Your task to perform on an android device: Open display settings Image 0: 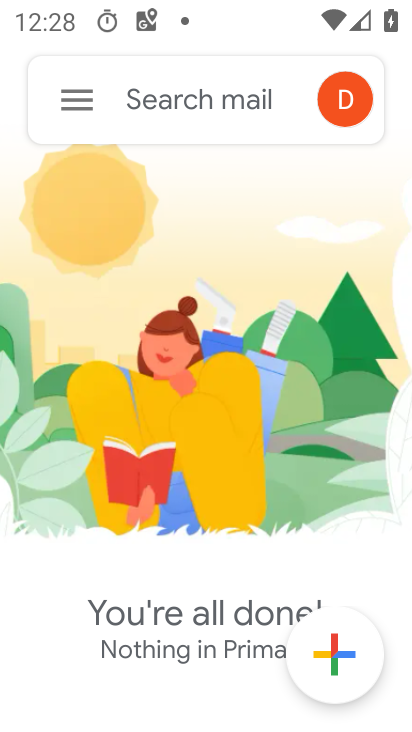
Step 0: press home button
Your task to perform on an android device: Open display settings Image 1: 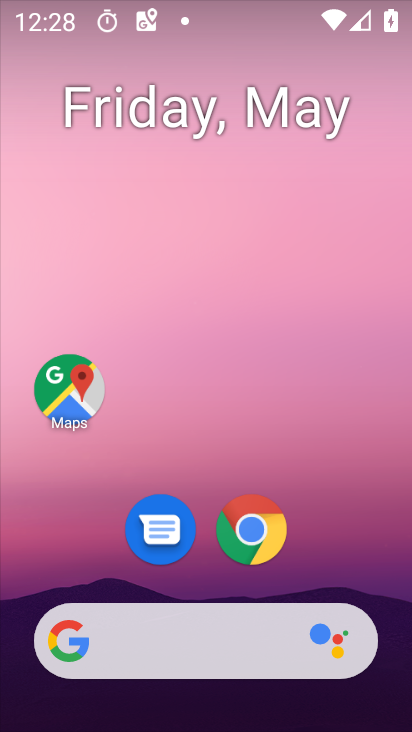
Step 1: drag from (226, 567) to (240, 230)
Your task to perform on an android device: Open display settings Image 2: 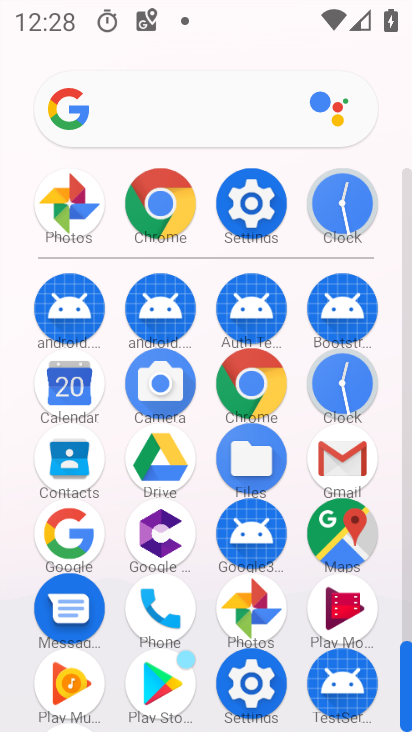
Step 2: drag from (183, 555) to (199, 379)
Your task to perform on an android device: Open display settings Image 3: 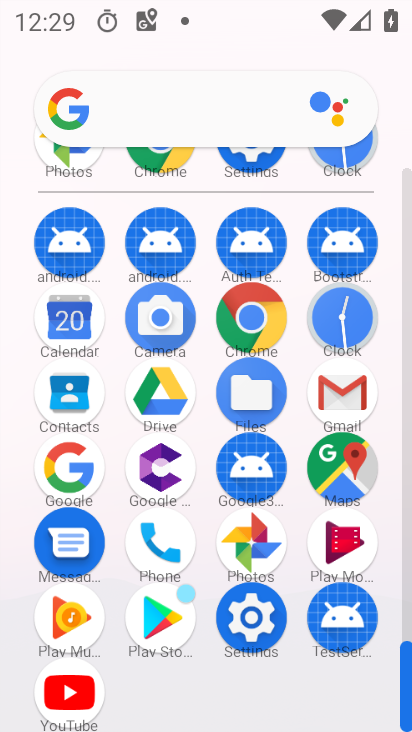
Step 3: click (250, 616)
Your task to perform on an android device: Open display settings Image 4: 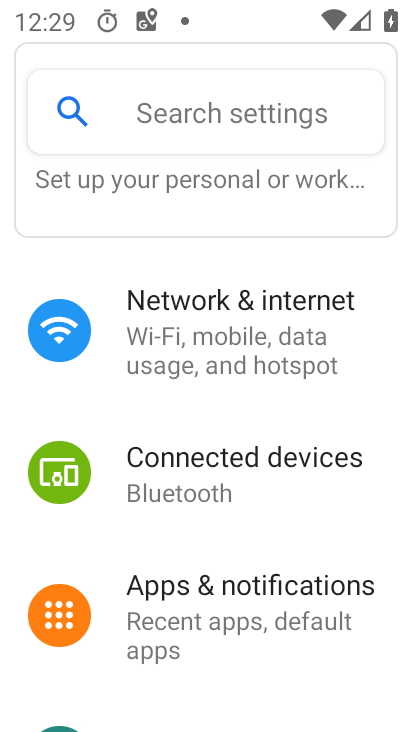
Step 4: drag from (247, 614) to (295, 245)
Your task to perform on an android device: Open display settings Image 5: 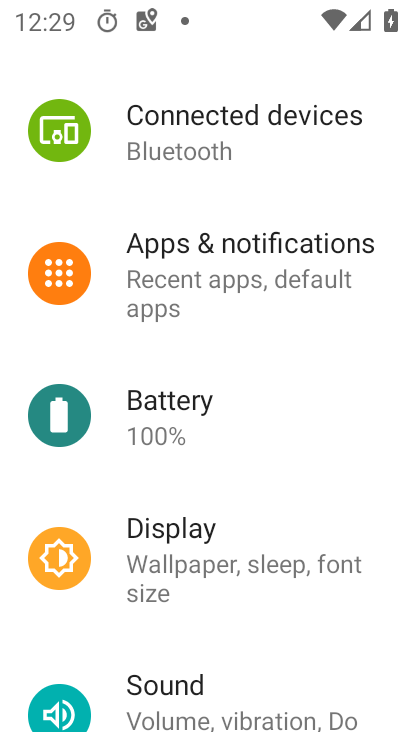
Step 5: click (227, 562)
Your task to perform on an android device: Open display settings Image 6: 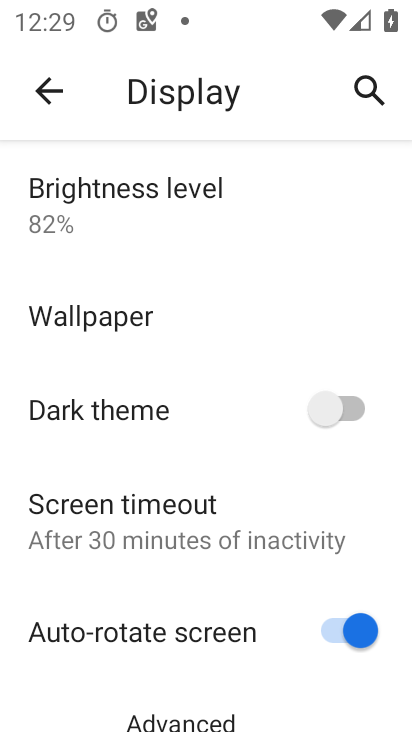
Step 6: task complete